Your task to perform on an android device: change the upload size in google photos Image 0: 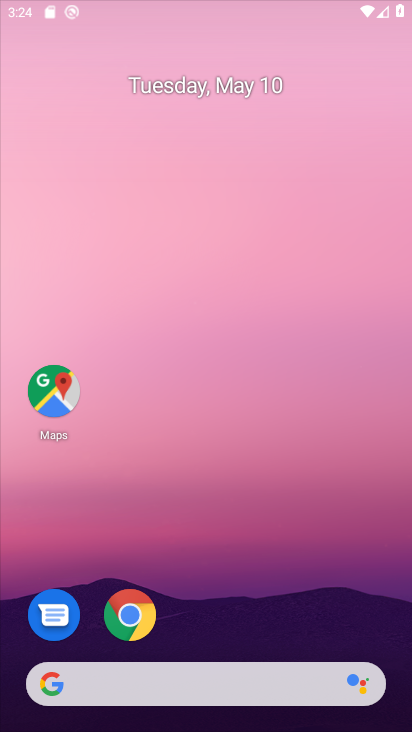
Step 0: drag from (247, 688) to (134, 100)
Your task to perform on an android device: change the upload size in google photos Image 1: 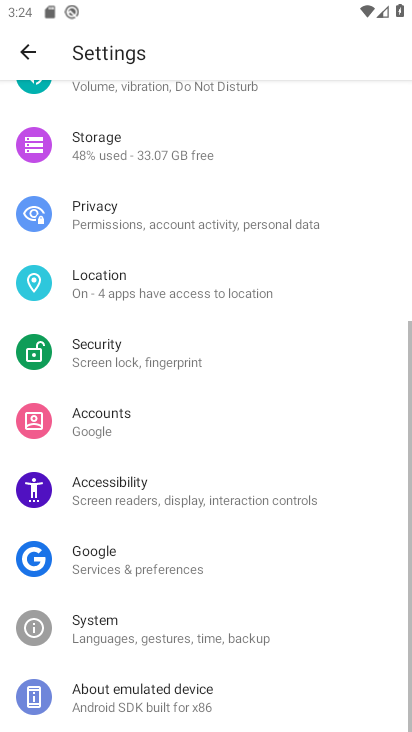
Step 1: press home button
Your task to perform on an android device: change the upload size in google photos Image 2: 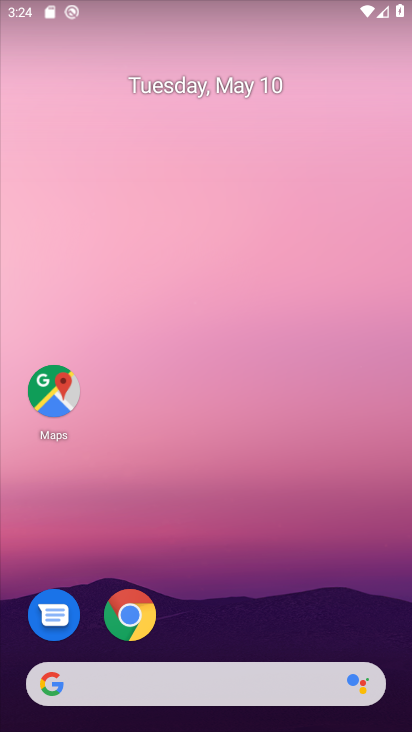
Step 2: drag from (170, 569) to (242, 48)
Your task to perform on an android device: change the upload size in google photos Image 3: 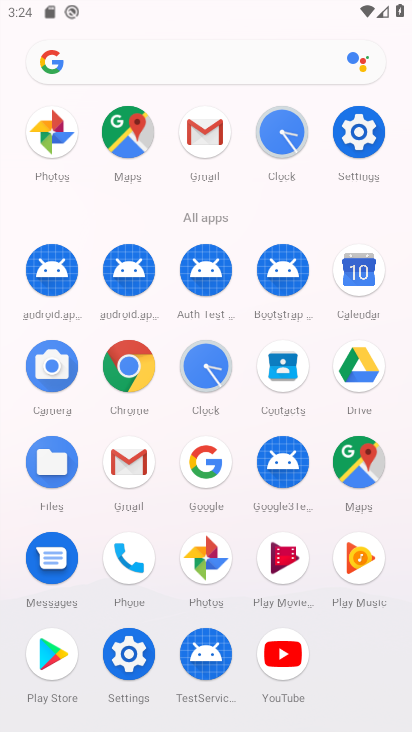
Step 3: click (53, 139)
Your task to perform on an android device: change the upload size in google photos Image 4: 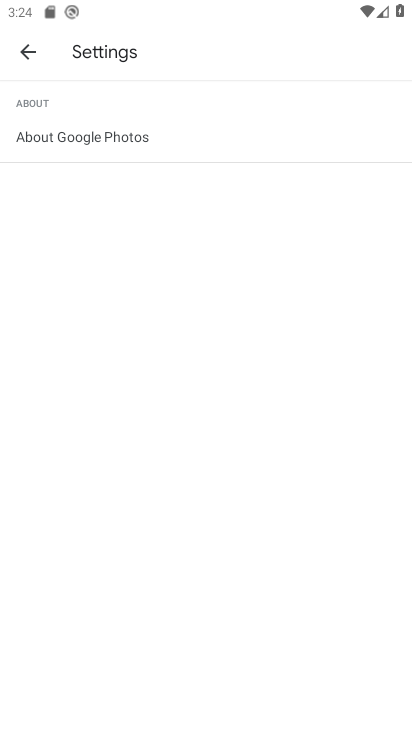
Step 4: press back button
Your task to perform on an android device: change the upload size in google photos Image 5: 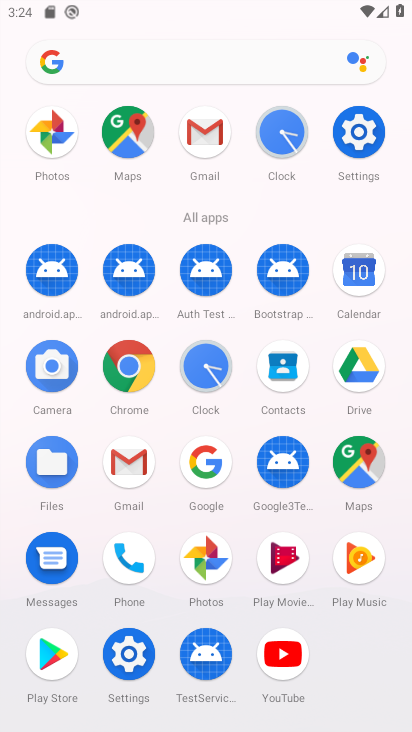
Step 5: click (56, 146)
Your task to perform on an android device: change the upload size in google photos Image 6: 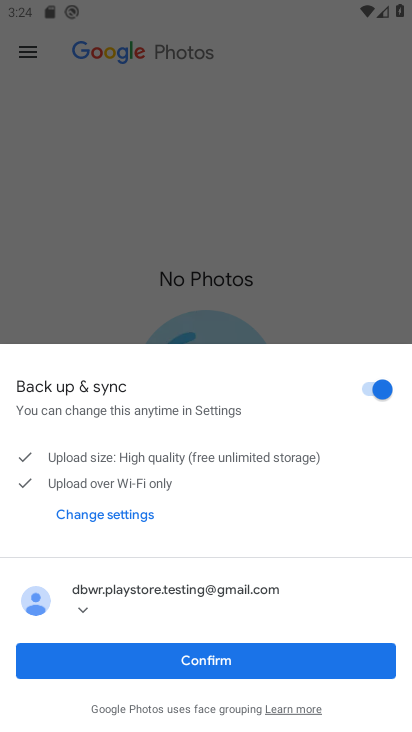
Step 6: click (94, 521)
Your task to perform on an android device: change the upload size in google photos Image 7: 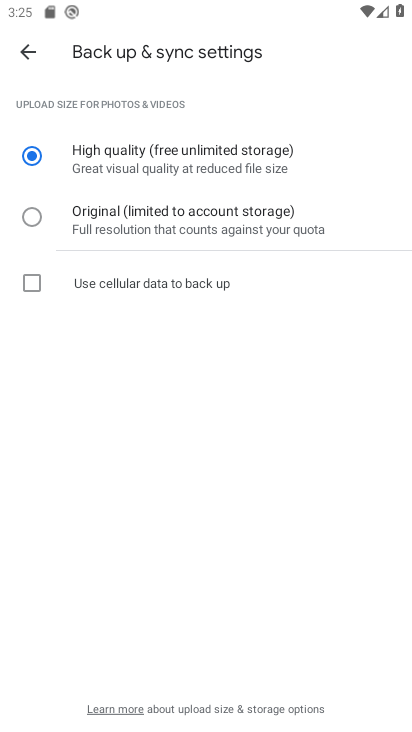
Step 7: click (35, 218)
Your task to perform on an android device: change the upload size in google photos Image 8: 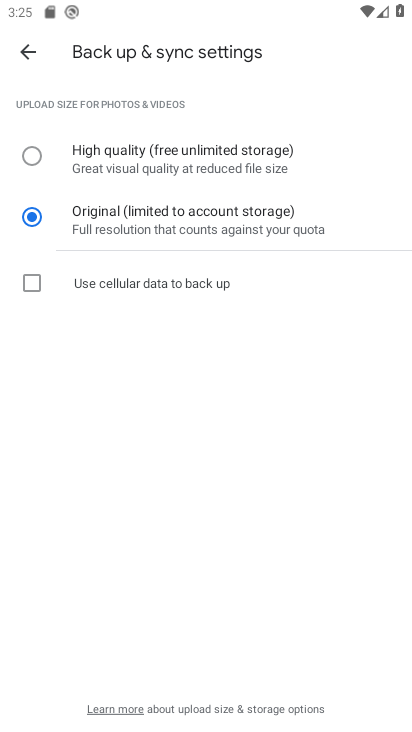
Step 8: task complete